Your task to perform on an android device: Open settings Image 0: 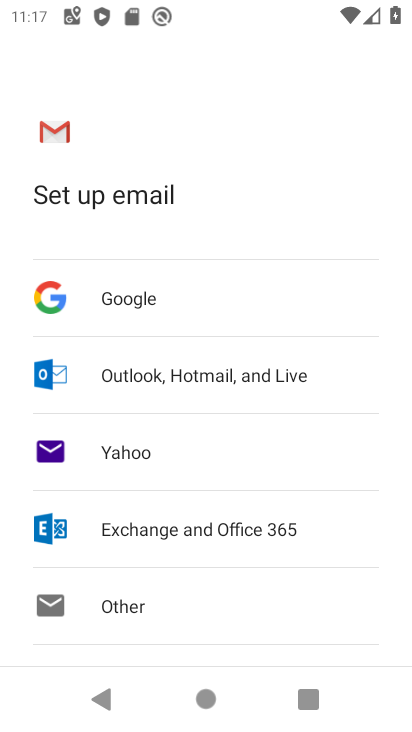
Step 0: press home button
Your task to perform on an android device: Open settings Image 1: 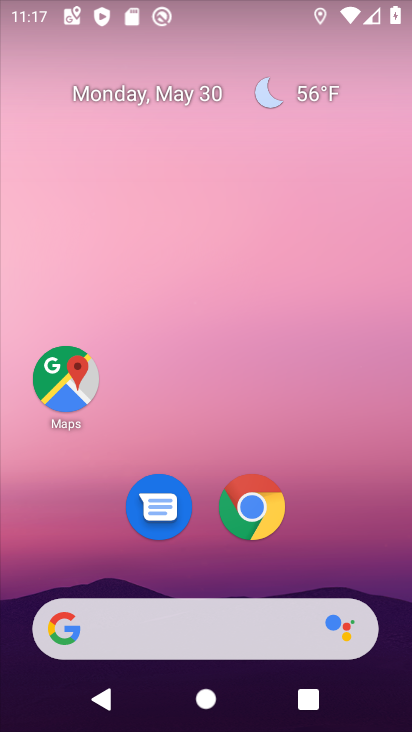
Step 1: drag from (173, 713) to (222, 89)
Your task to perform on an android device: Open settings Image 2: 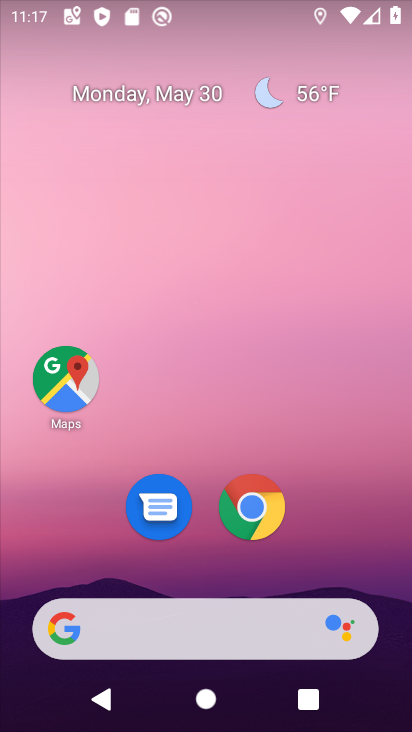
Step 2: drag from (156, 642) to (196, 39)
Your task to perform on an android device: Open settings Image 3: 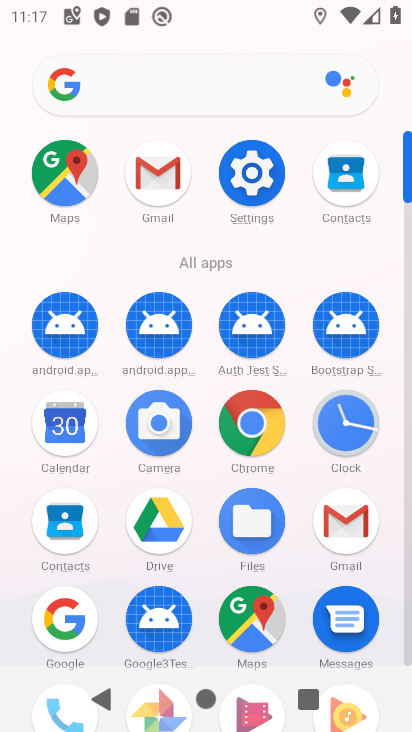
Step 3: click (251, 191)
Your task to perform on an android device: Open settings Image 4: 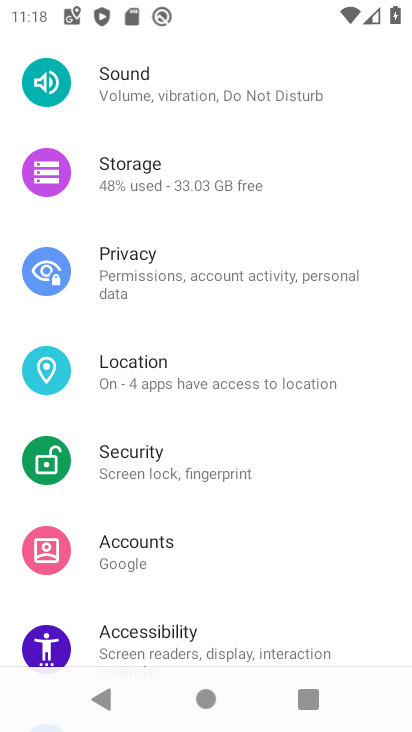
Step 4: task complete